Your task to perform on an android device: Open Google Chrome and open the bookmarks view Image 0: 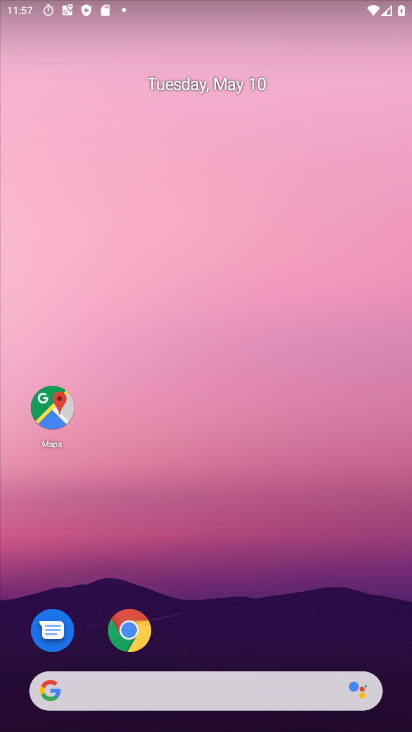
Step 0: click (127, 625)
Your task to perform on an android device: Open Google Chrome and open the bookmarks view Image 1: 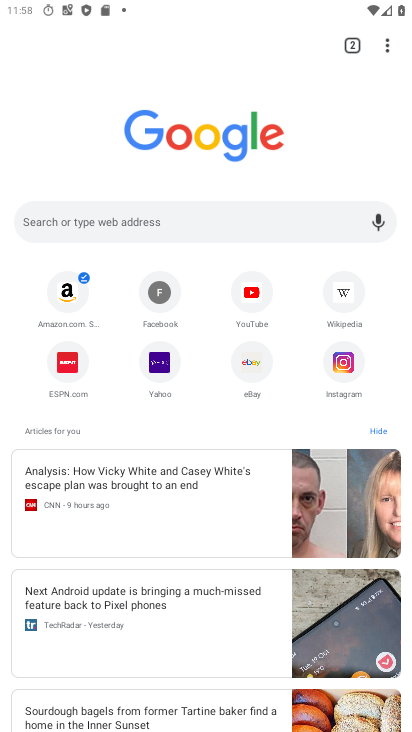
Step 1: drag from (386, 47) to (401, 599)
Your task to perform on an android device: Open Google Chrome and open the bookmarks view Image 2: 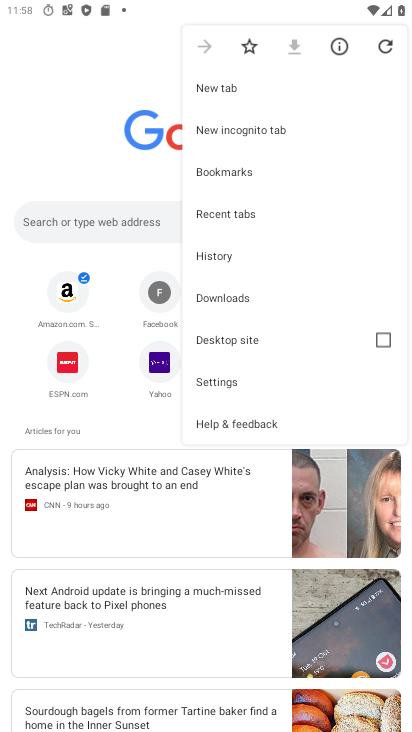
Step 2: press home button
Your task to perform on an android device: Open Google Chrome and open the bookmarks view Image 3: 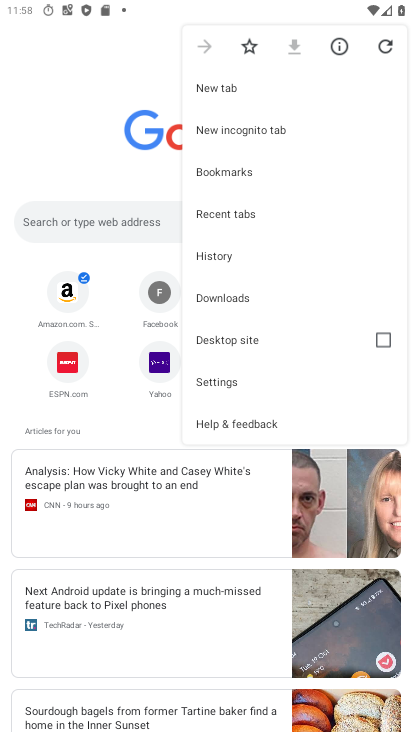
Step 3: click (387, 571)
Your task to perform on an android device: Open Google Chrome and open the bookmarks view Image 4: 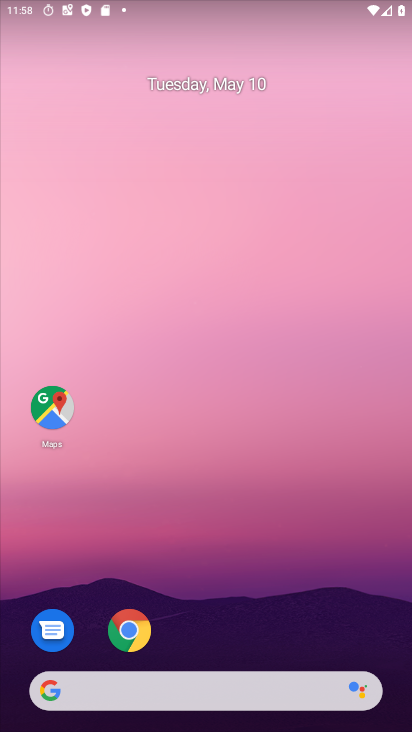
Step 4: click (121, 633)
Your task to perform on an android device: Open Google Chrome and open the bookmarks view Image 5: 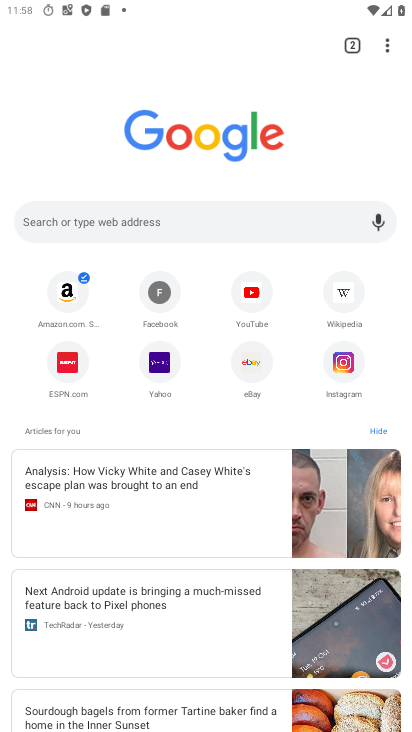
Step 5: task complete